Your task to perform on an android device: change the upload size in google photos Image 0: 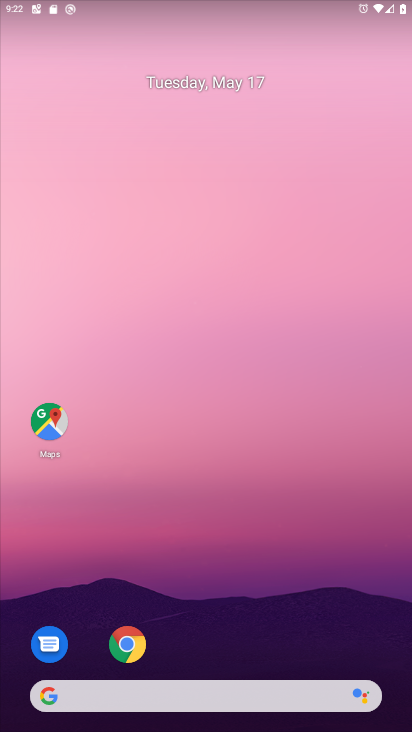
Step 0: press home button
Your task to perform on an android device: change the upload size in google photos Image 1: 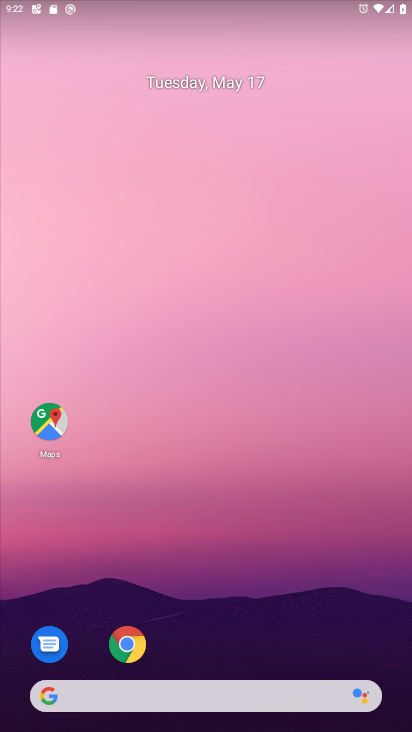
Step 1: drag from (193, 660) to (210, 21)
Your task to perform on an android device: change the upload size in google photos Image 2: 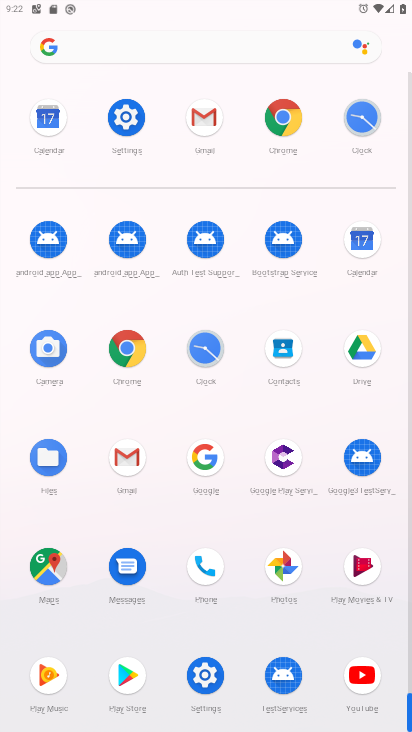
Step 2: click (279, 559)
Your task to perform on an android device: change the upload size in google photos Image 3: 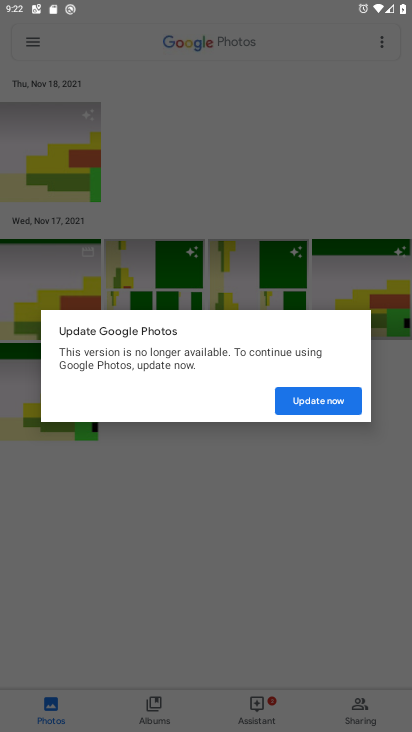
Step 3: click (321, 400)
Your task to perform on an android device: change the upload size in google photos Image 4: 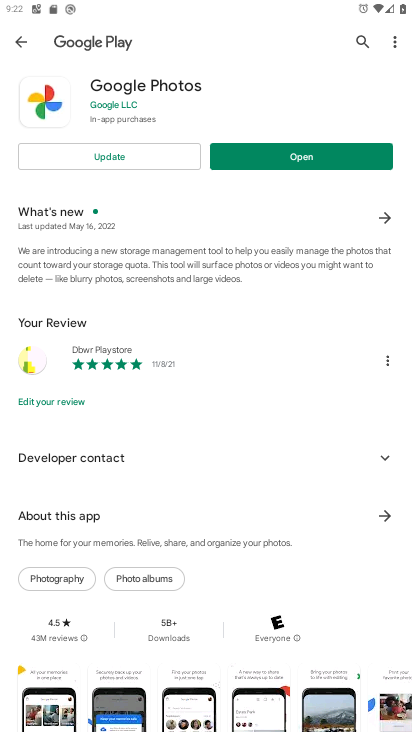
Step 4: click (103, 152)
Your task to perform on an android device: change the upload size in google photos Image 5: 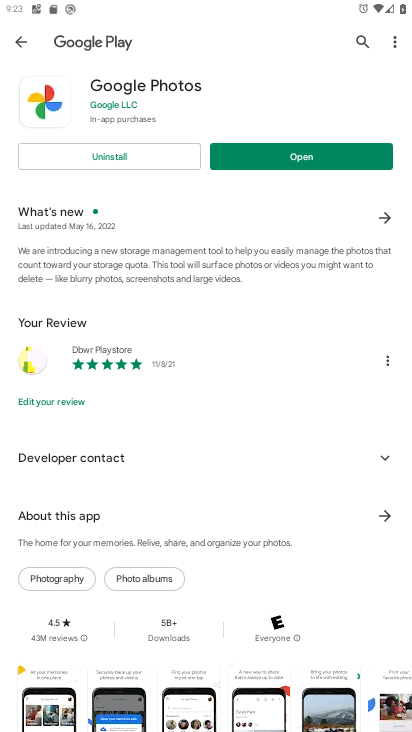
Step 5: click (322, 156)
Your task to perform on an android device: change the upload size in google photos Image 6: 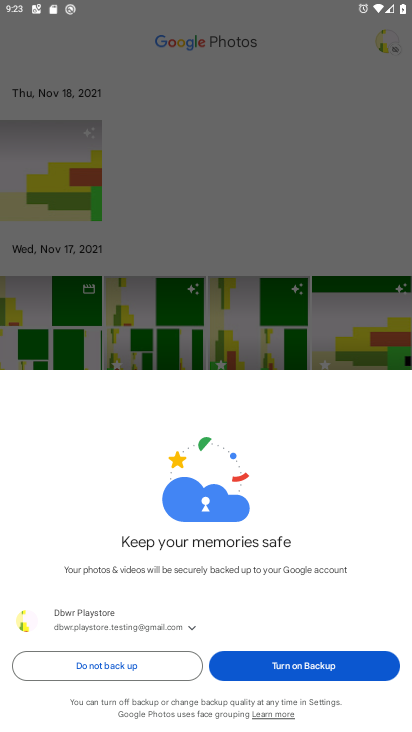
Step 6: click (309, 662)
Your task to perform on an android device: change the upload size in google photos Image 7: 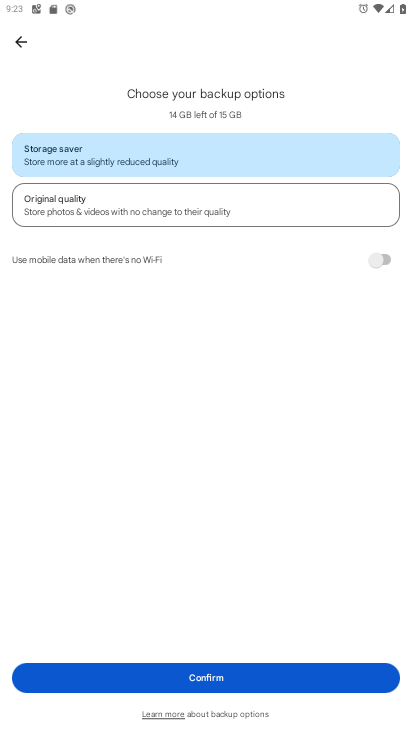
Step 7: click (211, 673)
Your task to perform on an android device: change the upload size in google photos Image 8: 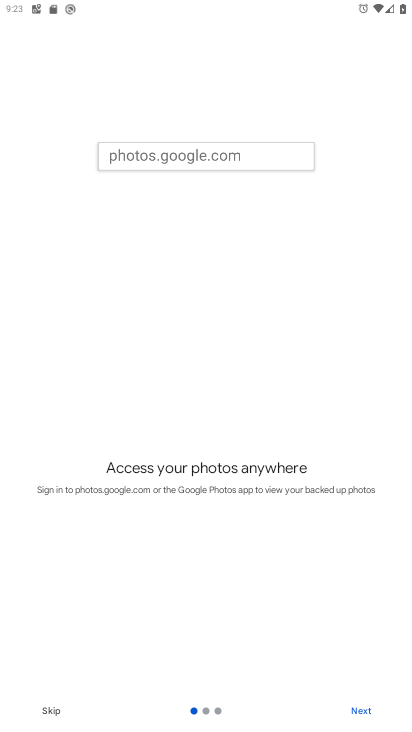
Step 8: click (359, 711)
Your task to perform on an android device: change the upload size in google photos Image 9: 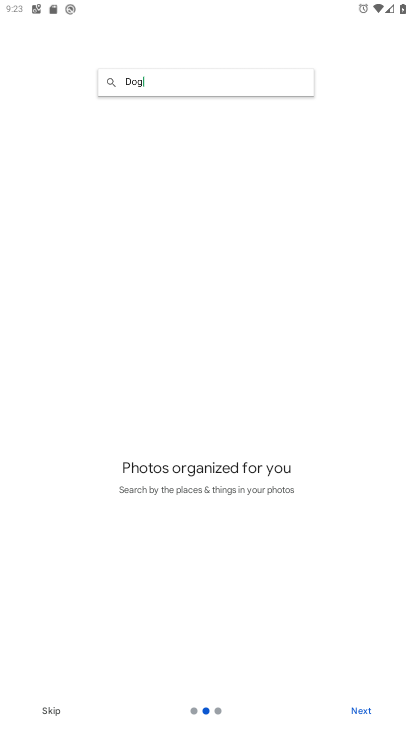
Step 9: click (359, 711)
Your task to perform on an android device: change the upload size in google photos Image 10: 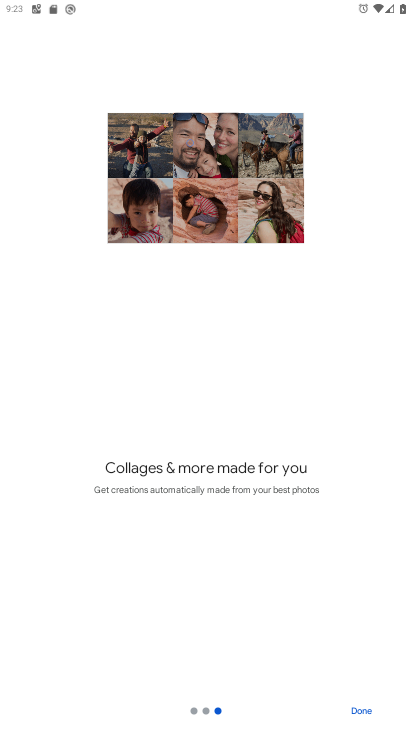
Step 10: click (359, 711)
Your task to perform on an android device: change the upload size in google photos Image 11: 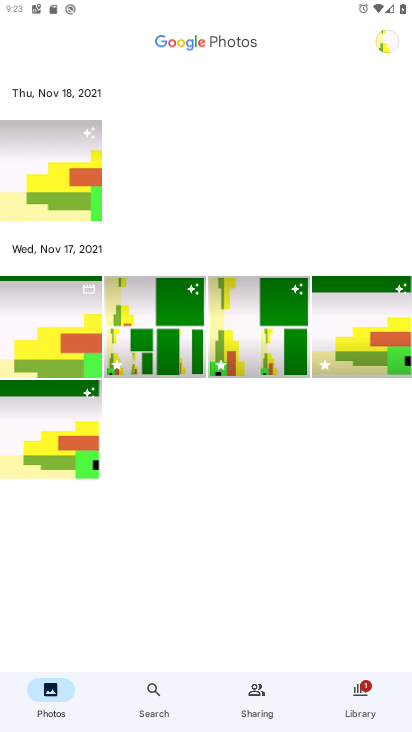
Step 11: click (385, 36)
Your task to perform on an android device: change the upload size in google photos Image 12: 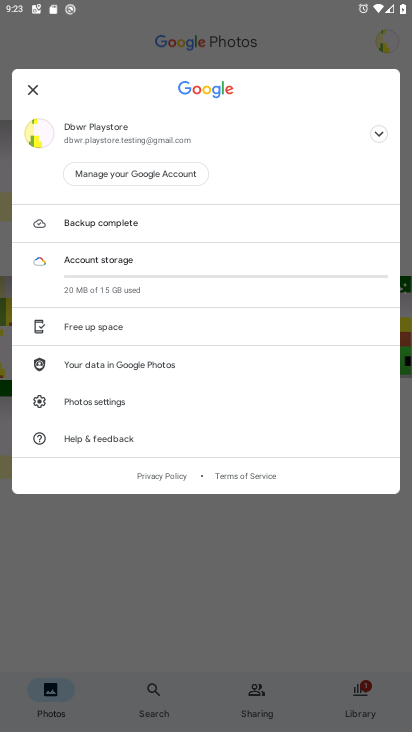
Step 12: click (144, 219)
Your task to perform on an android device: change the upload size in google photos Image 13: 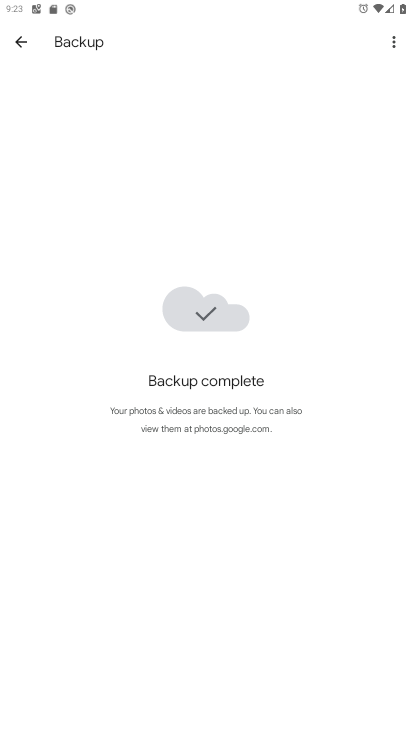
Step 13: click (390, 35)
Your task to perform on an android device: change the upload size in google photos Image 14: 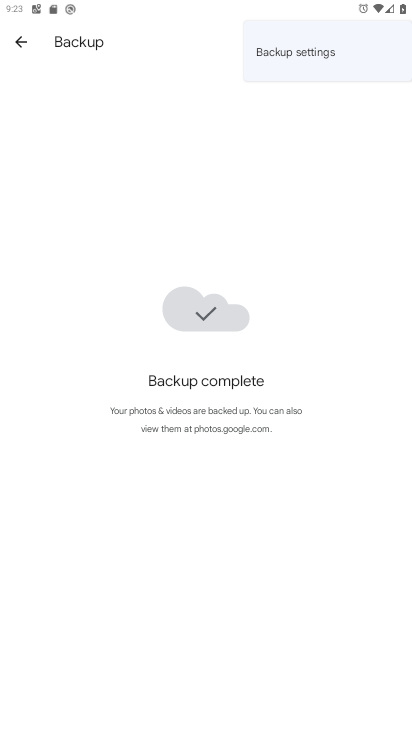
Step 14: click (285, 53)
Your task to perform on an android device: change the upload size in google photos Image 15: 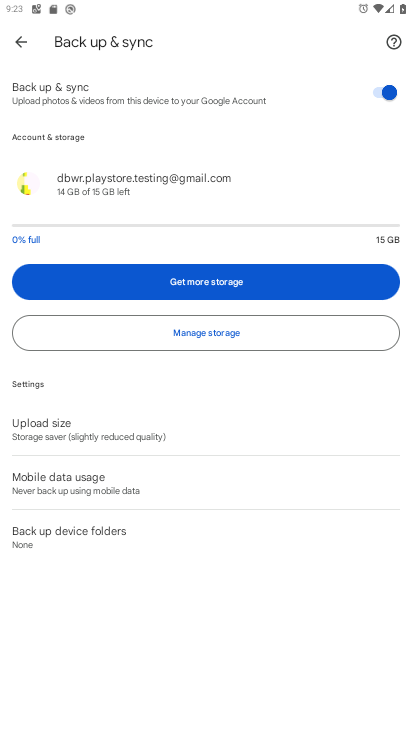
Step 15: click (77, 424)
Your task to perform on an android device: change the upload size in google photos Image 16: 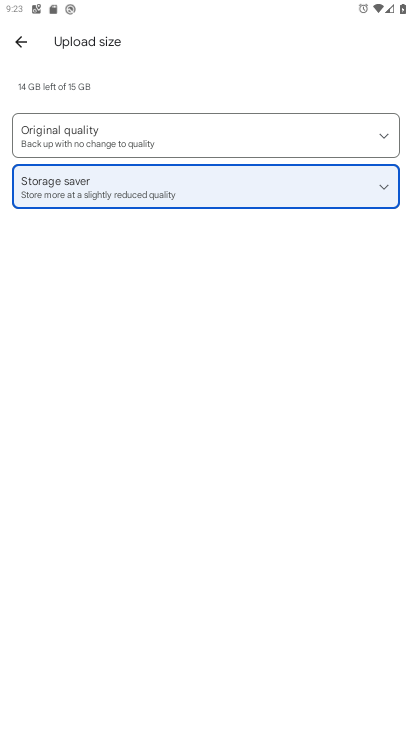
Step 16: click (124, 125)
Your task to perform on an android device: change the upload size in google photos Image 17: 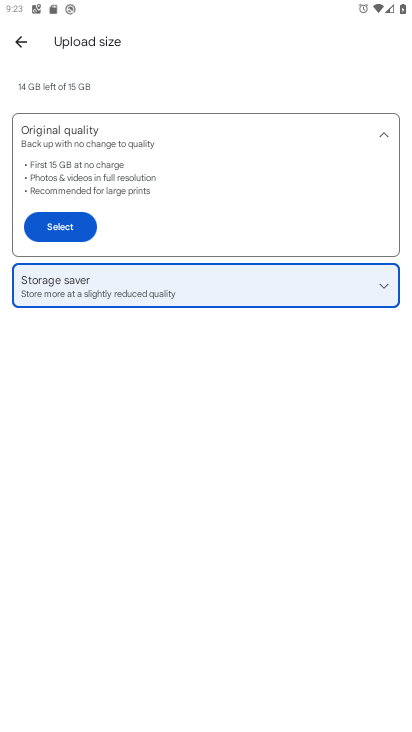
Step 17: click (55, 224)
Your task to perform on an android device: change the upload size in google photos Image 18: 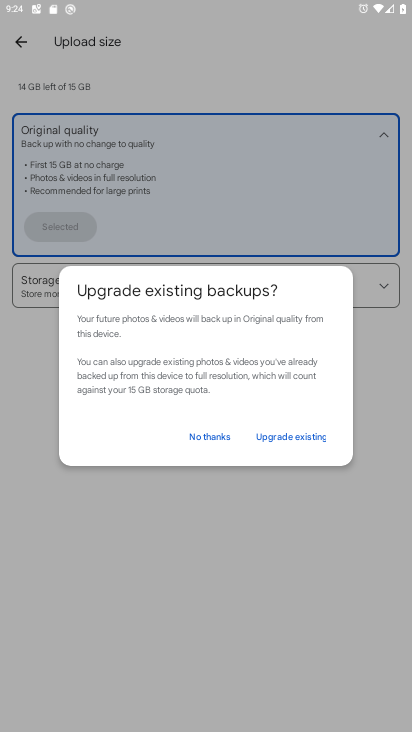
Step 18: click (289, 437)
Your task to perform on an android device: change the upload size in google photos Image 19: 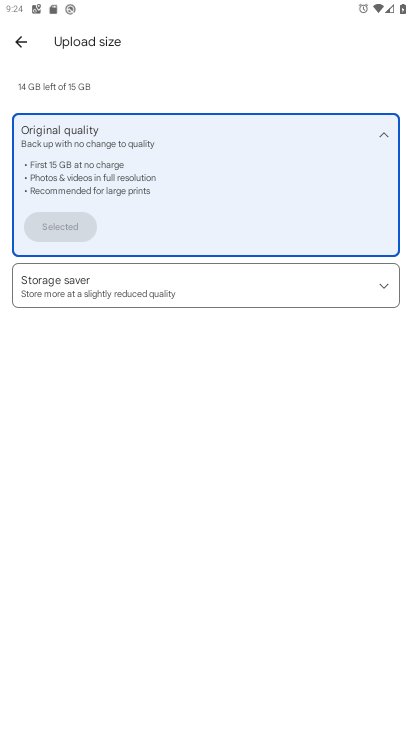
Step 19: task complete